Your task to perform on an android device: check storage Image 0: 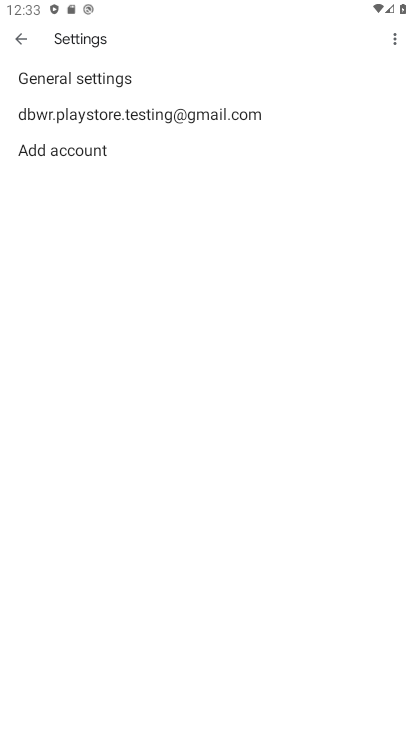
Step 0: press home button
Your task to perform on an android device: check storage Image 1: 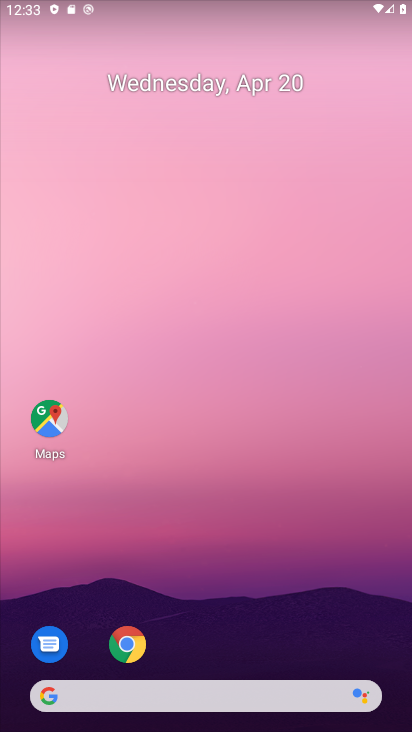
Step 1: drag from (306, 643) to (282, 0)
Your task to perform on an android device: check storage Image 2: 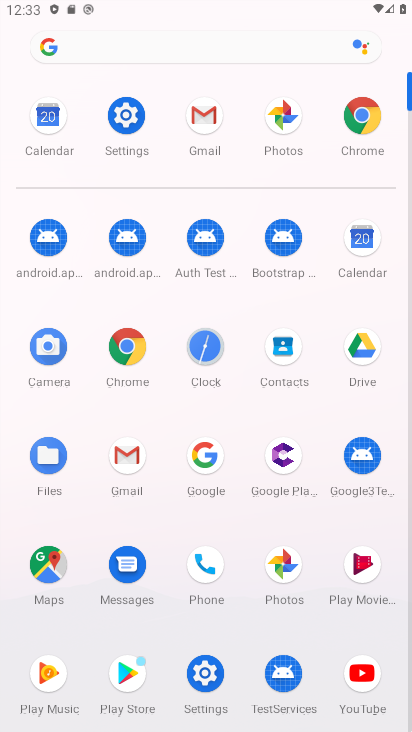
Step 2: click (125, 115)
Your task to perform on an android device: check storage Image 3: 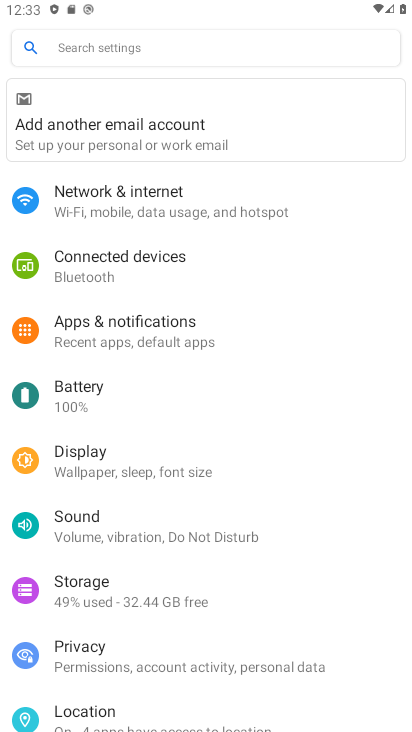
Step 3: click (110, 589)
Your task to perform on an android device: check storage Image 4: 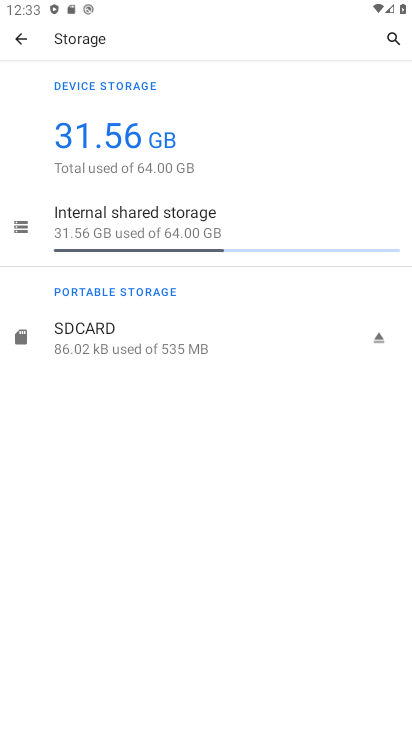
Step 4: task complete